Your task to perform on an android device: Show me recent news Image 0: 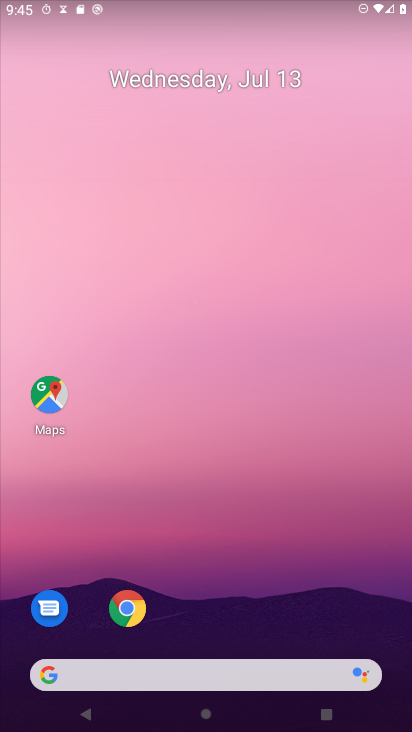
Step 0: drag from (236, 660) to (236, 426)
Your task to perform on an android device: Show me recent news Image 1: 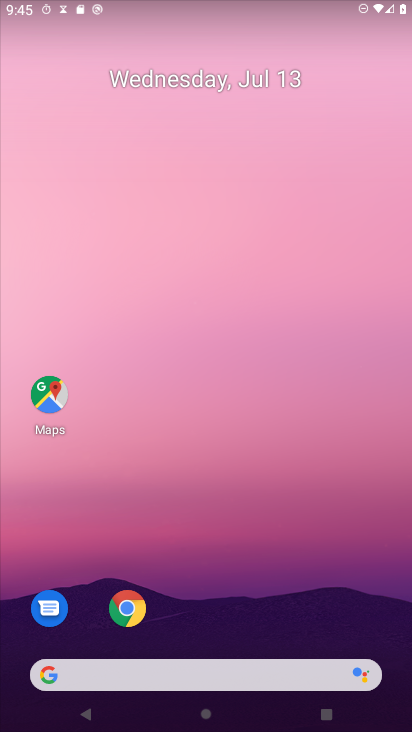
Step 1: drag from (296, 364) to (275, 183)
Your task to perform on an android device: Show me recent news Image 2: 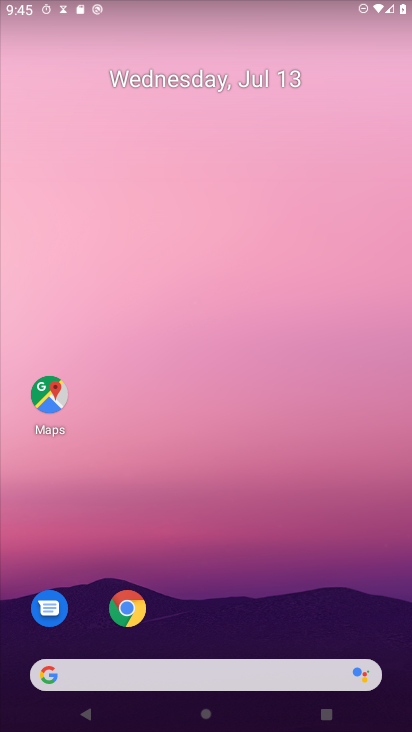
Step 2: drag from (82, 204) to (287, 400)
Your task to perform on an android device: Show me recent news Image 3: 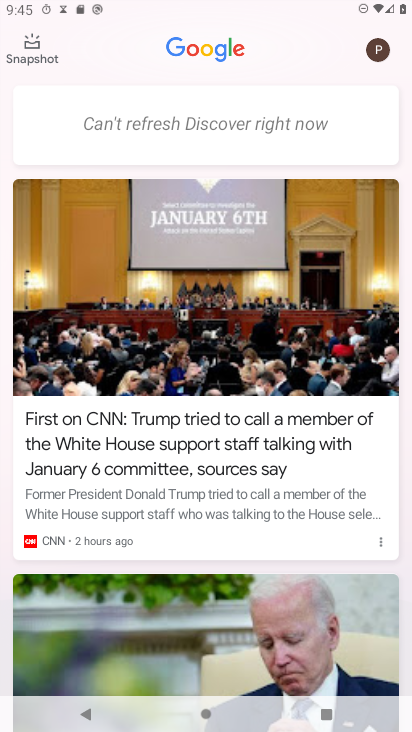
Step 3: drag from (129, 198) to (311, 333)
Your task to perform on an android device: Show me recent news Image 4: 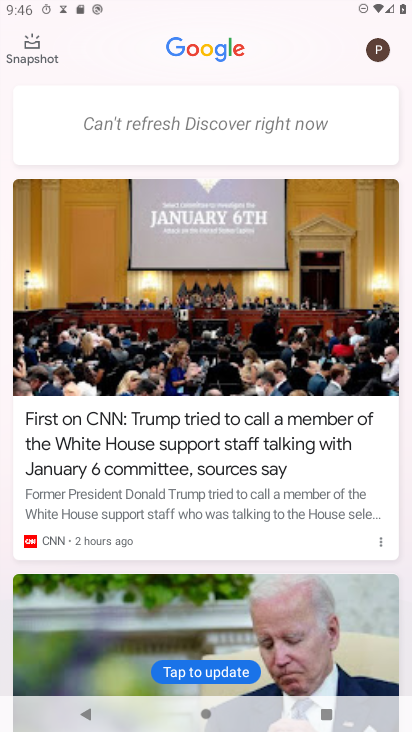
Step 4: click (189, 128)
Your task to perform on an android device: Show me recent news Image 5: 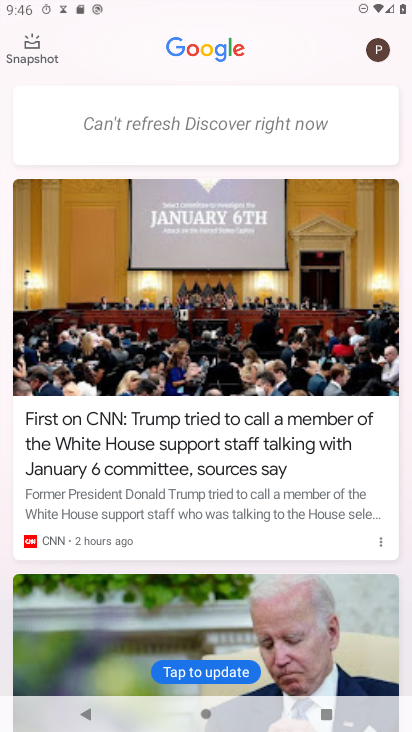
Step 5: click (216, 376)
Your task to perform on an android device: Show me recent news Image 6: 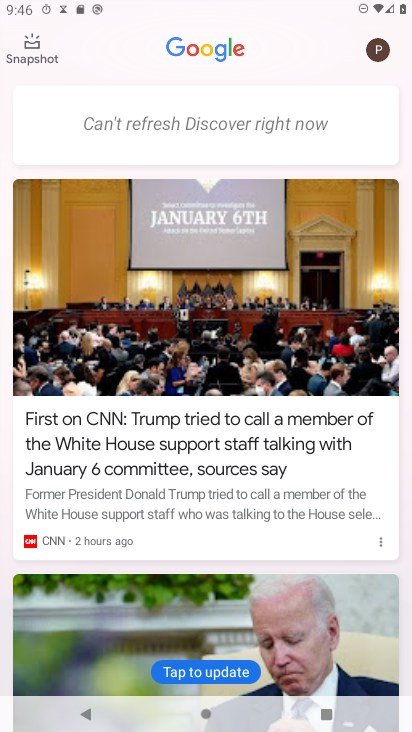
Step 6: task complete